Your task to perform on an android device: Open ESPN.com Image 0: 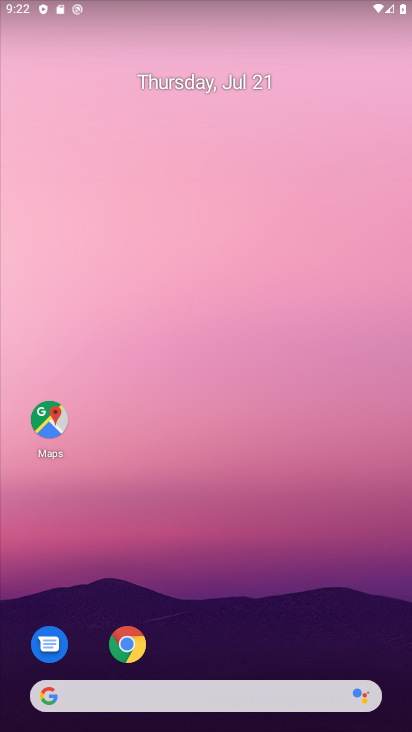
Step 0: task complete